Your task to perform on an android device: search for starred emails in the gmail app Image 0: 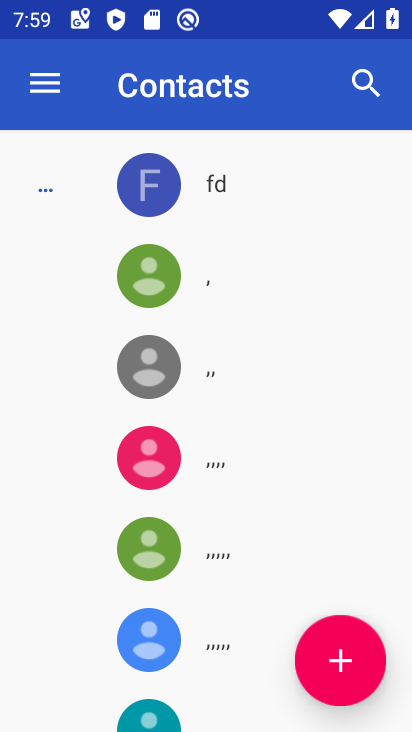
Step 0: press home button
Your task to perform on an android device: search for starred emails in the gmail app Image 1: 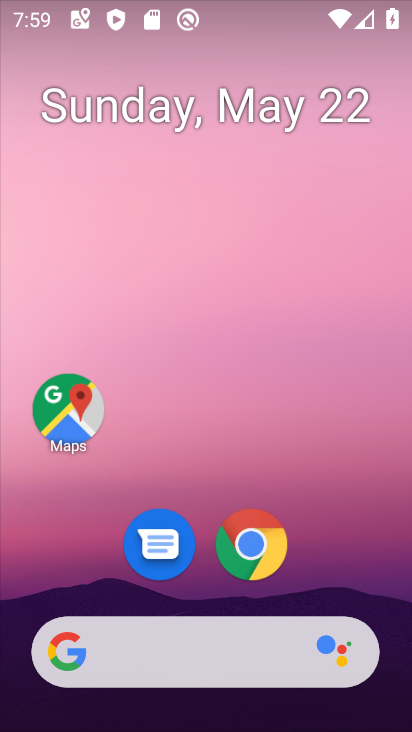
Step 1: drag from (355, 583) to (260, 114)
Your task to perform on an android device: search for starred emails in the gmail app Image 2: 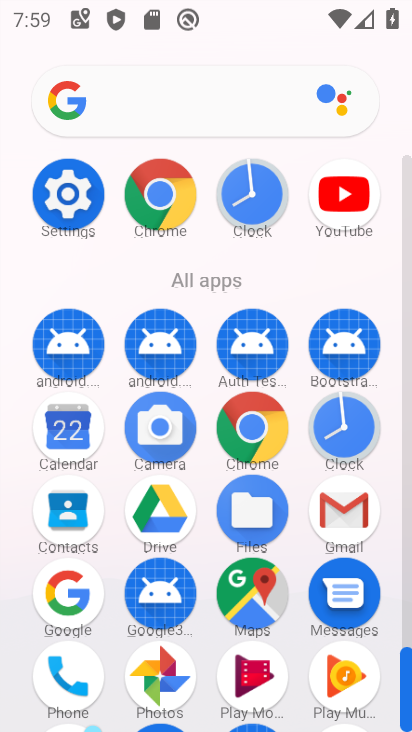
Step 2: click (357, 510)
Your task to perform on an android device: search for starred emails in the gmail app Image 3: 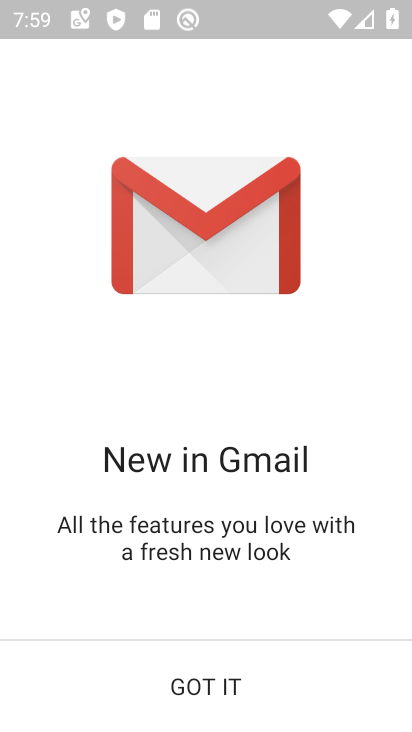
Step 3: click (256, 675)
Your task to perform on an android device: search for starred emails in the gmail app Image 4: 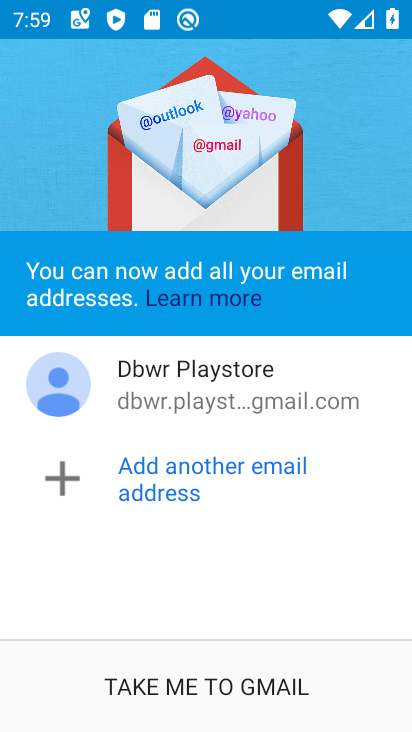
Step 4: click (254, 670)
Your task to perform on an android device: search for starred emails in the gmail app Image 5: 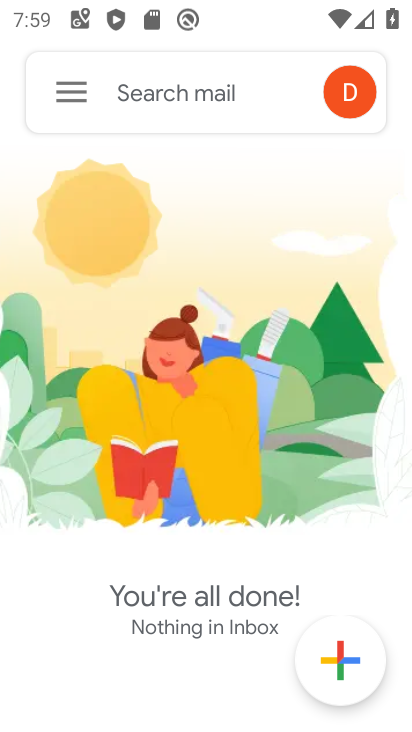
Step 5: click (67, 82)
Your task to perform on an android device: search for starred emails in the gmail app Image 6: 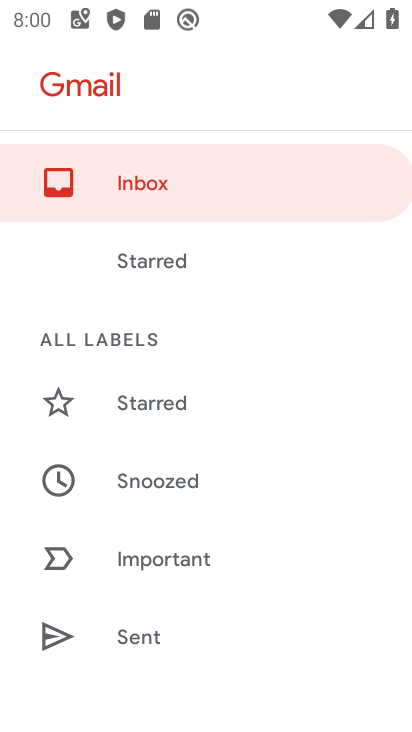
Step 6: click (147, 389)
Your task to perform on an android device: search for starred emails in the gmail app Image 7: 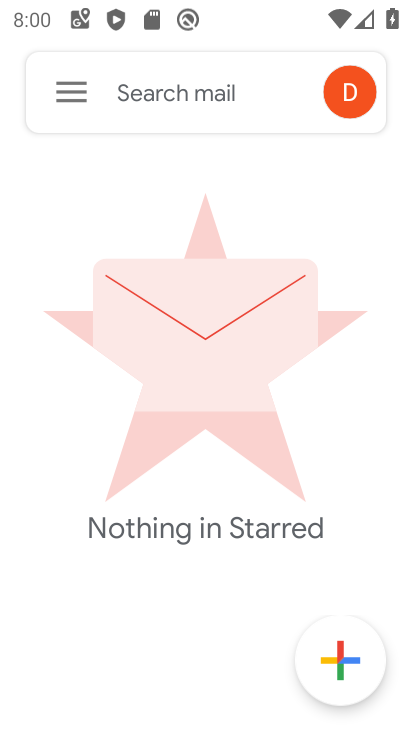
Step 7: task complete